Your task to perform on an android device: choose inbox layout in the gmail app Image 0: 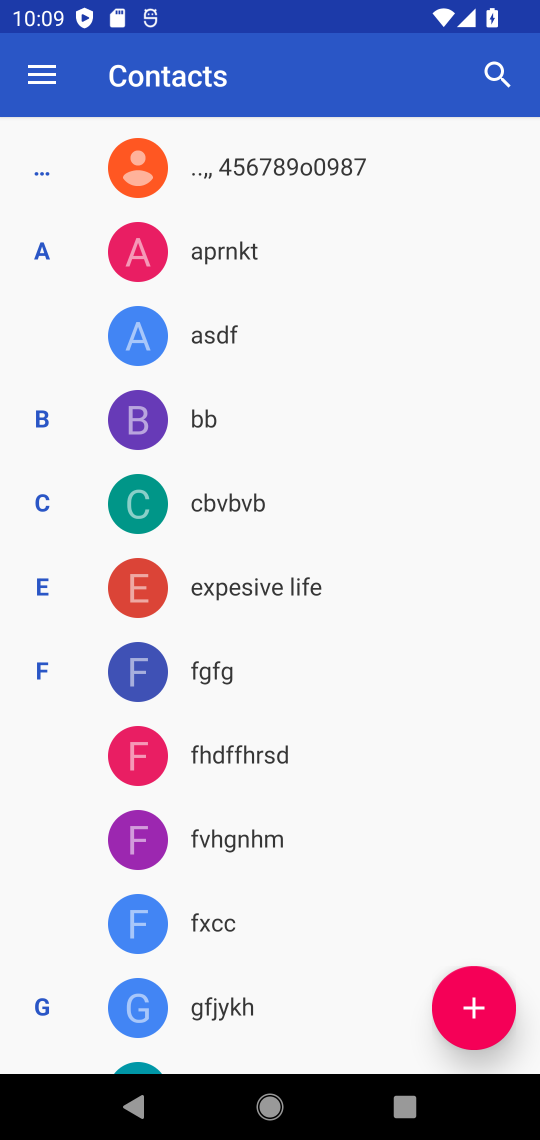
Step 0: press back button
Your task to perform on an android device: choose inbox layout in the gmail app Image 1: 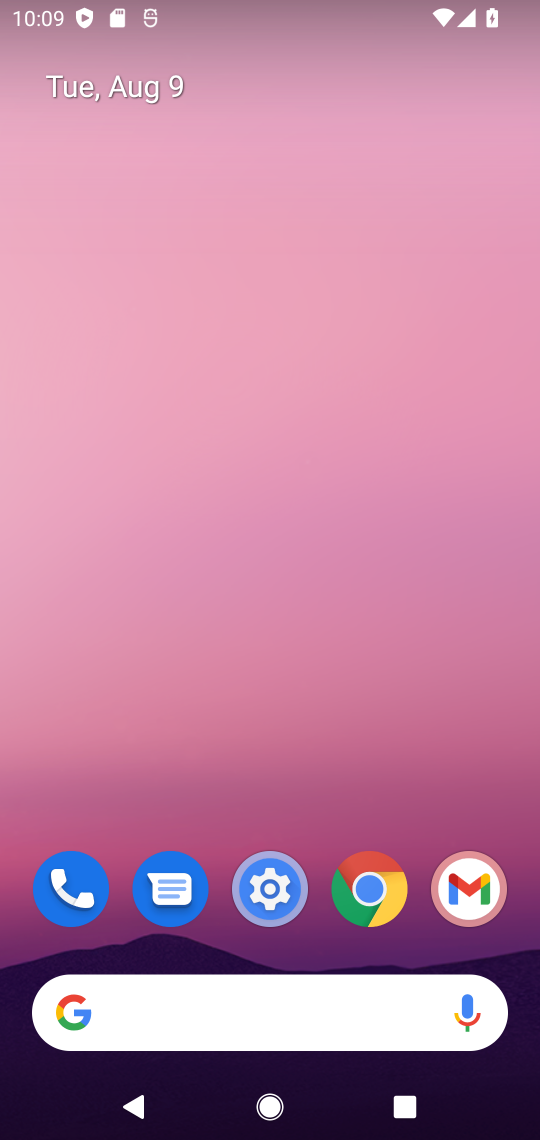
Step 1: drag from (305, 937) to (429, 402)
Your task to perform on an android device: choose inbox layout in the gmail app Image 2: 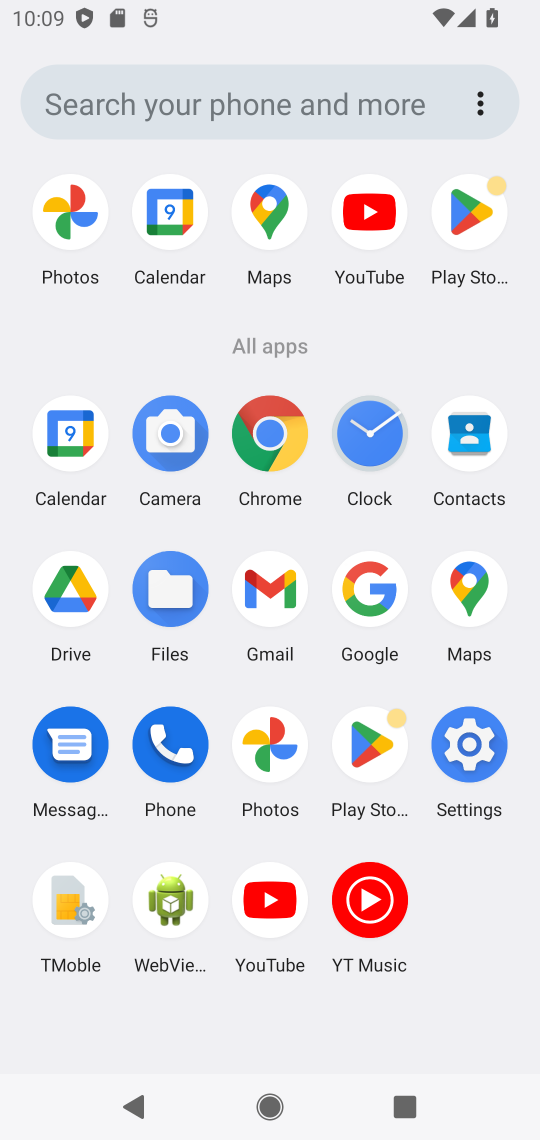
Step 2: click (261, 586)
Your task to perform on an android device: choose inbox layout in the gmail app Image 3: 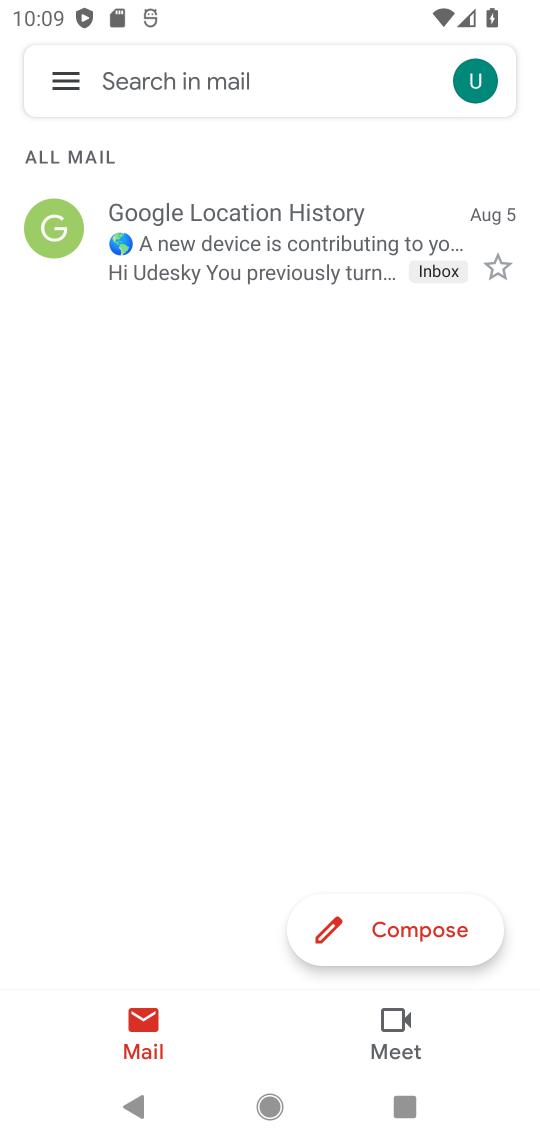
Step 3: click (70, 75)
Your task to perform on an android device: choose inbox layout in the gmail app Image 4: 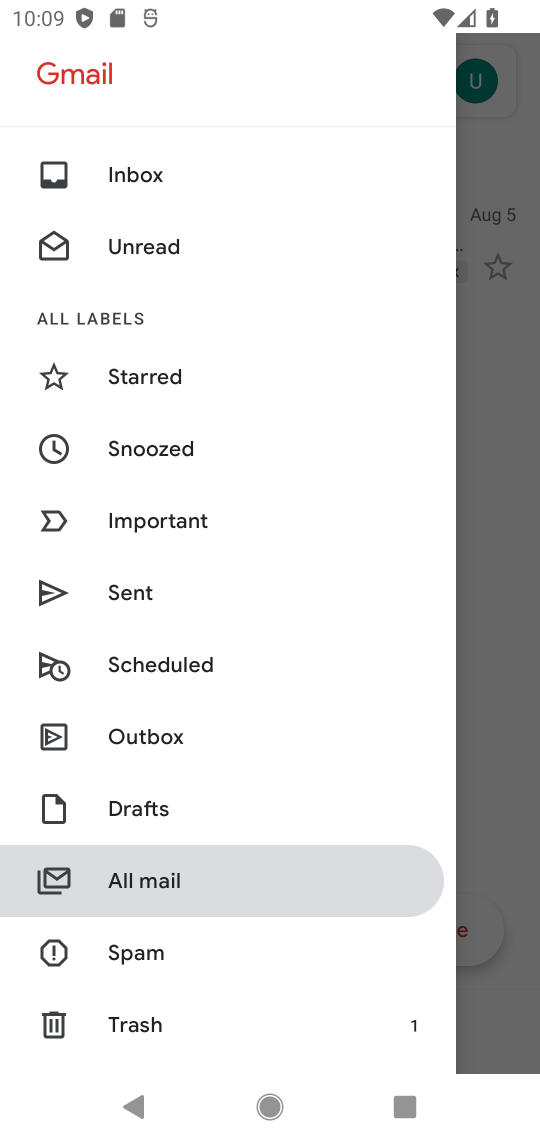
Step 4: drag from (220, 961) to (330, 271)
Your task to perform on an android device: choose inbox layout in the gmail app Image 5: 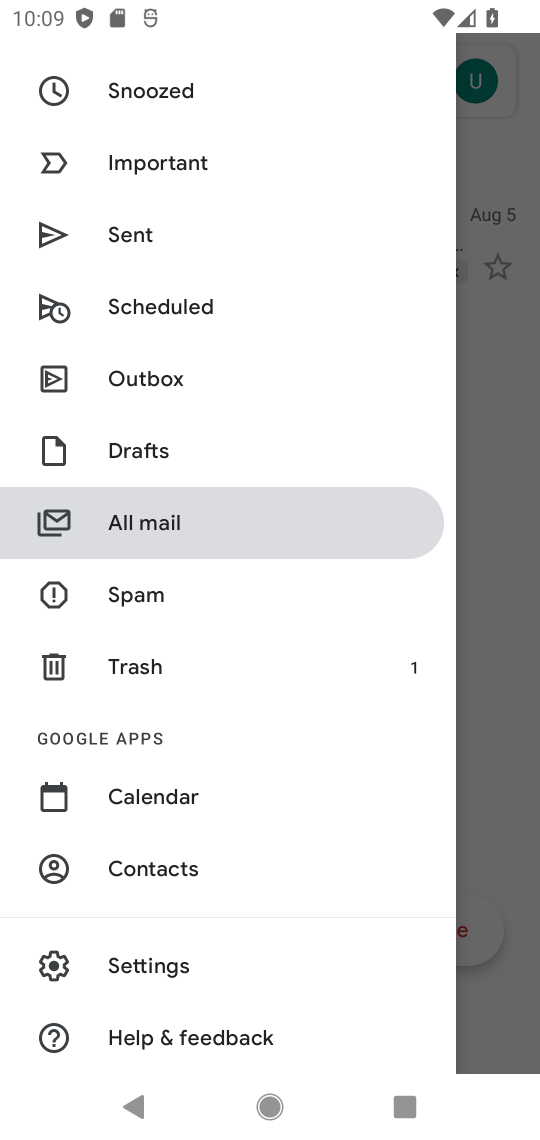
Step 5: click (165, 965)
Your task to perform on an android device: choose inbox layout in the gmail app Image 6: 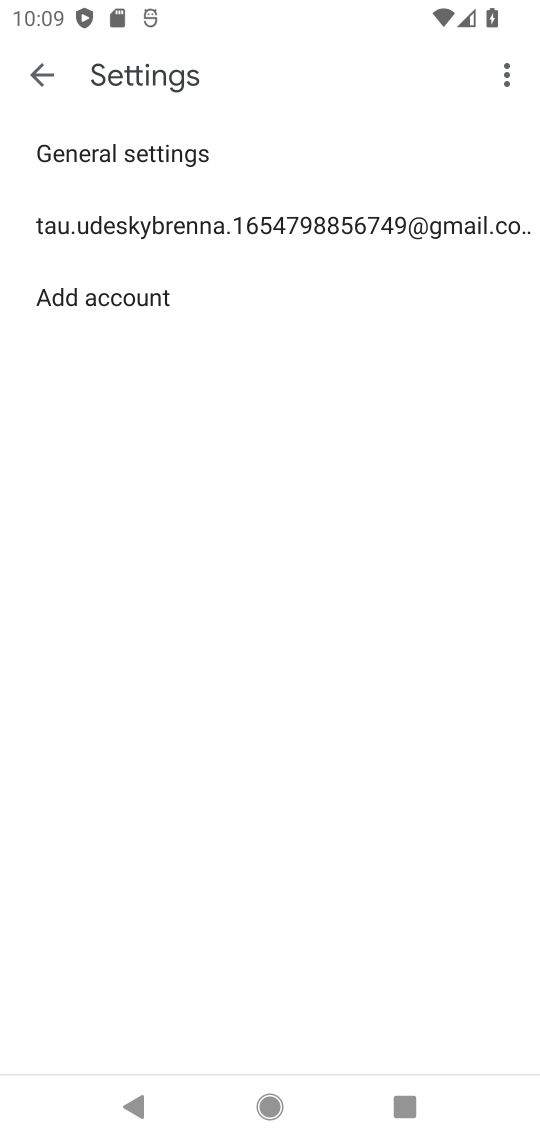
Step 6: click (176, 236)
Your task to perform on an android device: choose inbox layout in the gmail app Image 7: 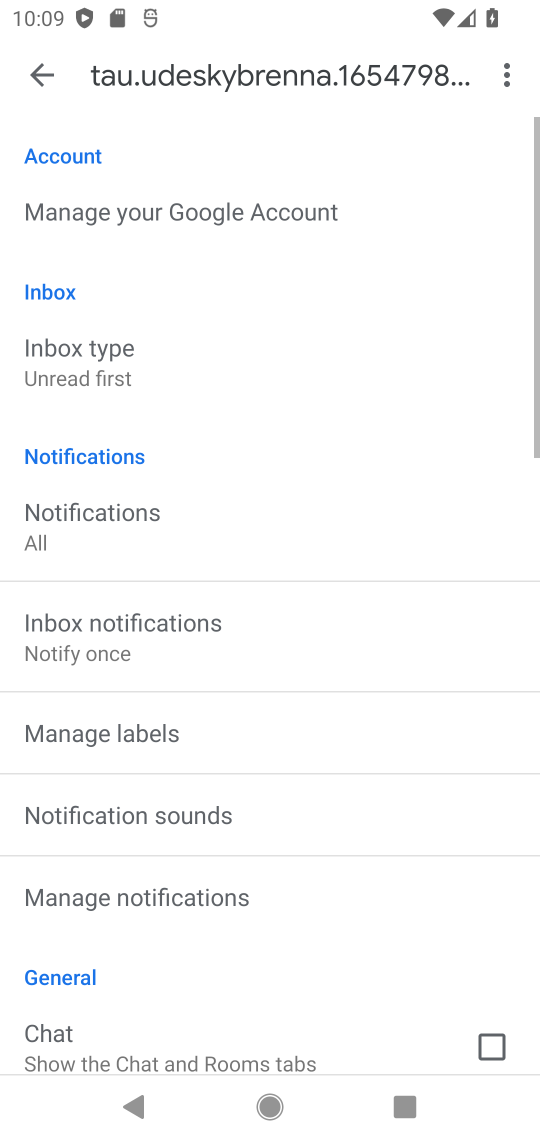
Step 7: click (115, 355)
Your task to perform on an android device: choose inbox layout in the gmail app Image 8: 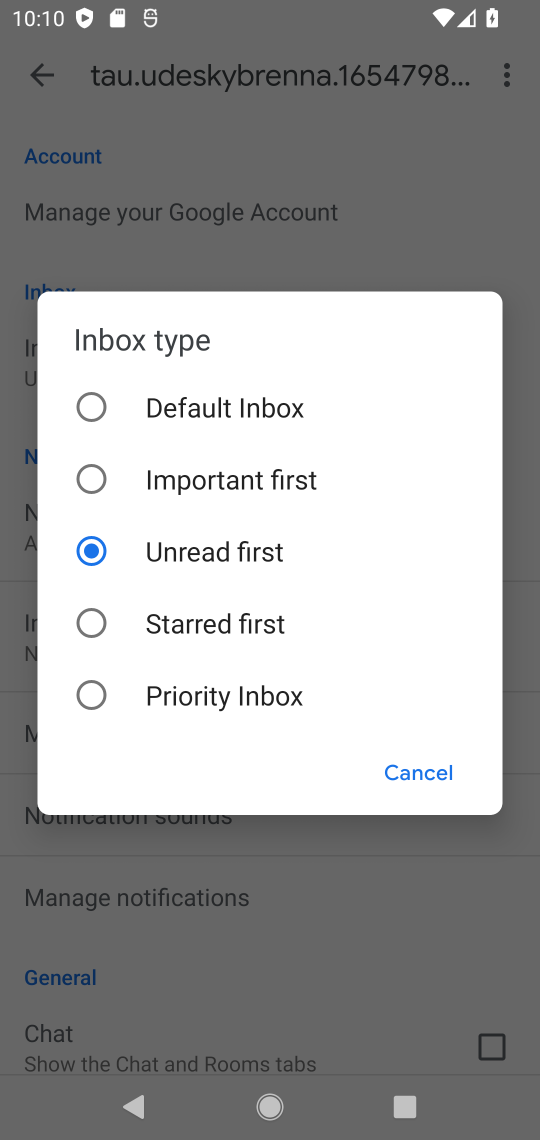
Step 8: click (141, 698)
Your task to perform on an android device: choose inbox layout in the gmail app Image 9: 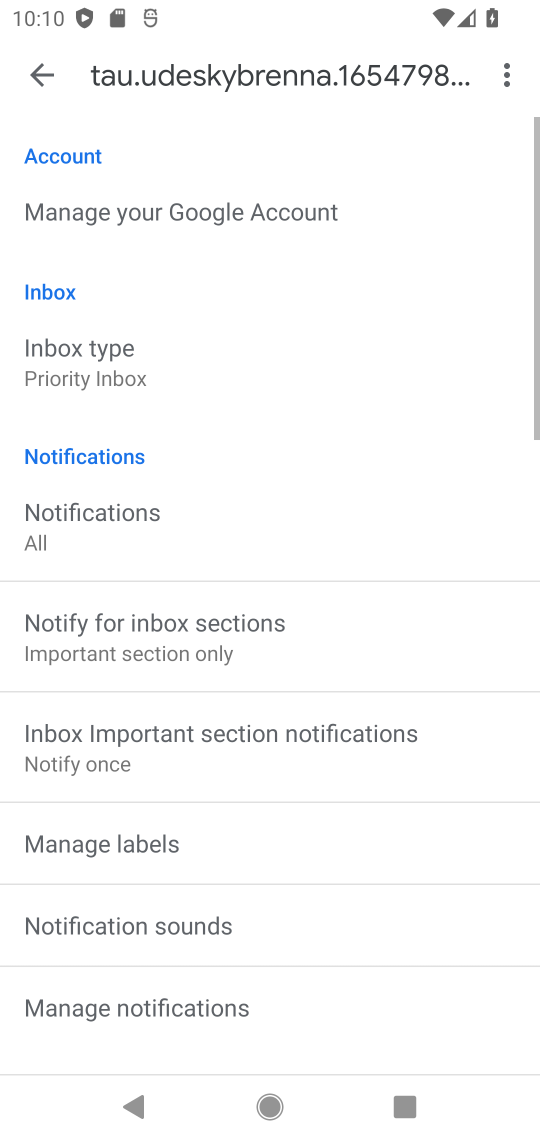
Step 9: task complete